Your task to perform on an android device: change your default location settings in chrome Image 0: 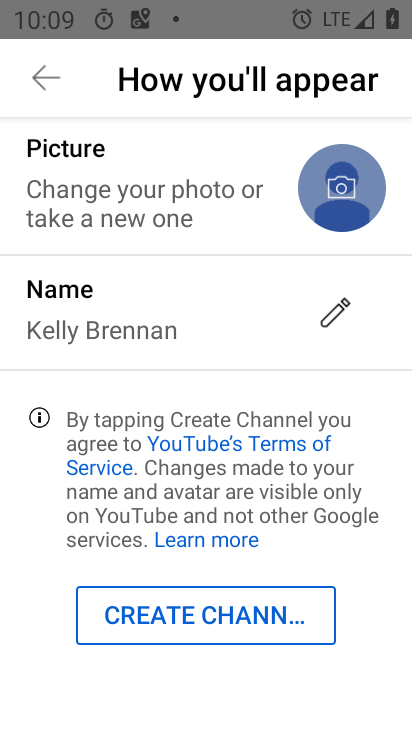
Step 0: press back button
Your task to perform on an android device: change your default location settings in chrome Image 1: 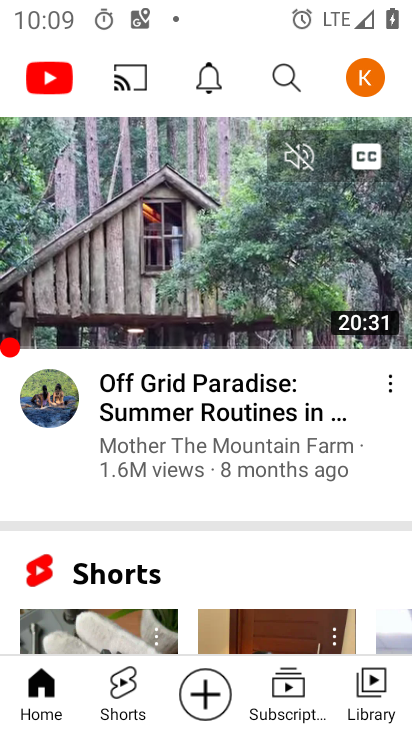
Step 1: press home button
Your task to perform on an android device: change your default location settings in chrome Image 2: 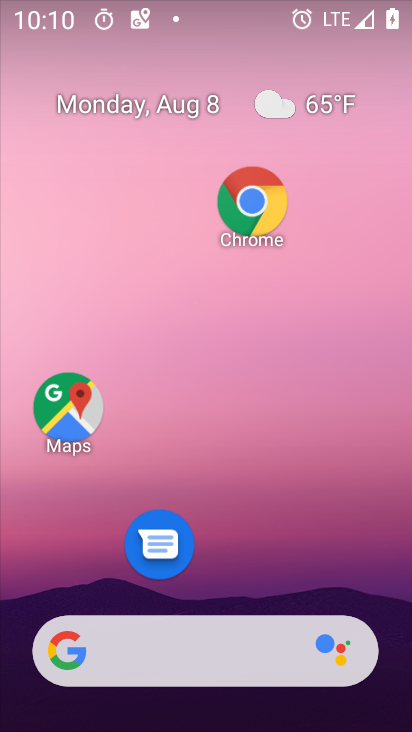
Step 2: drag from (284, 580) to (341, 110)
Your task to perform on an android device: change your default location settings in chrome Image 3: 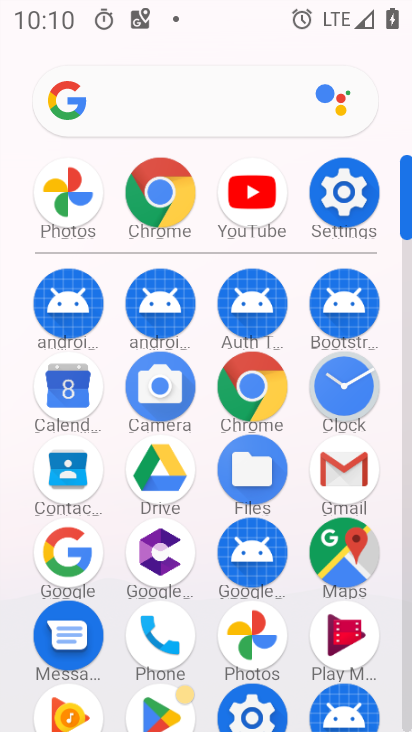
Step 3: click (248, 377)
Your task to perform on an android device: change your default location settings in chrome Image 4: 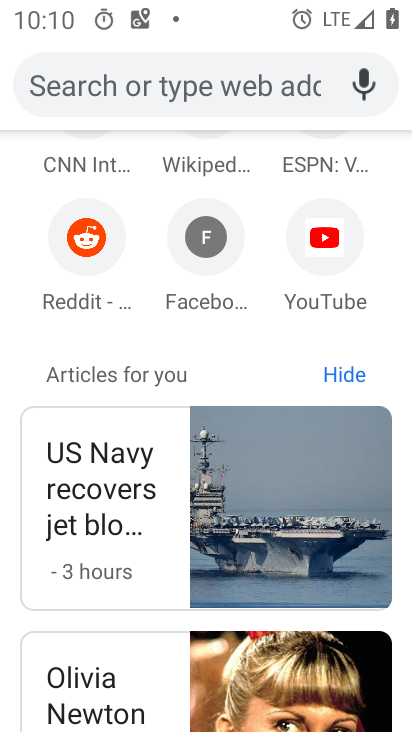
Step 4: drag from (201, 194) to (218, 621)
Your task to perform on an android device: change your default location settings in chrome Image 5: 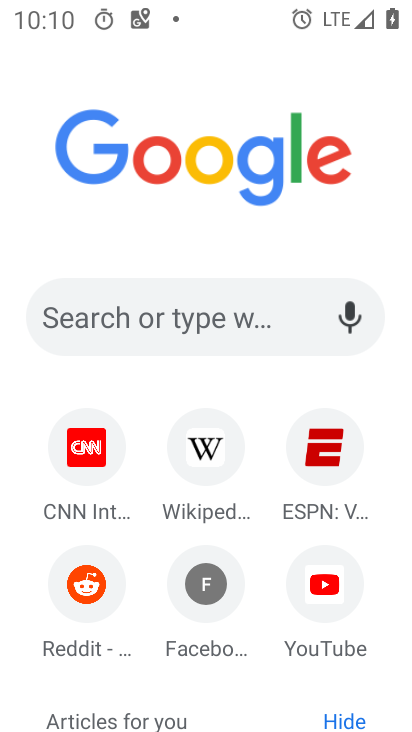
Step 5: drag from (338, 112) to (331, 481)
Your task to perform on an android device: change your default location settings in chrome Image 6: 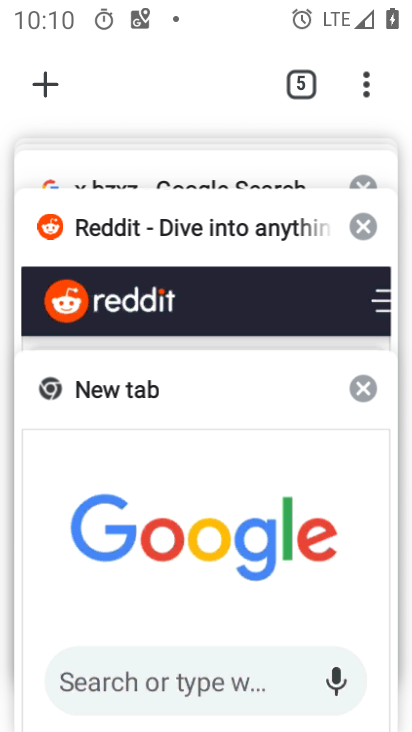
Step 6: click (258, 495)
Your task to perform on an android device: change your default location settings in chrome Image 7: 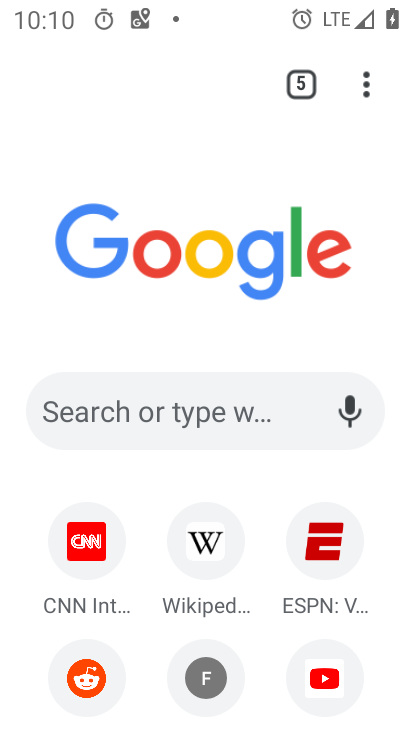
Step 7: click (368, 78)
Your task to perform on an android device: change your default location settings in chrome Image 8: 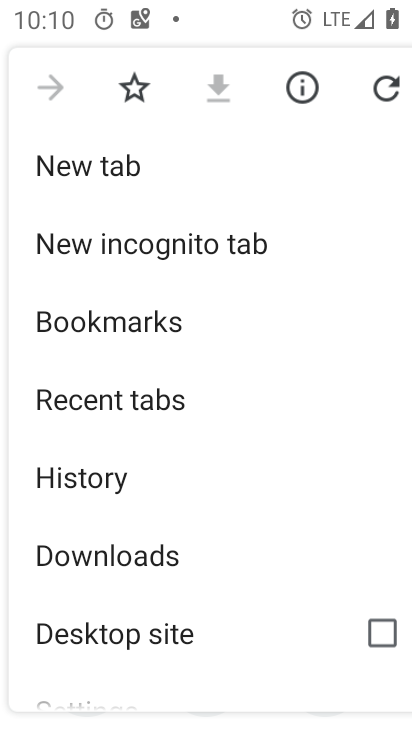
Step 8: drag from (208, 606) to (221, 193)
Your task to perform on an android device: change your default location settings in chrome Image 9: 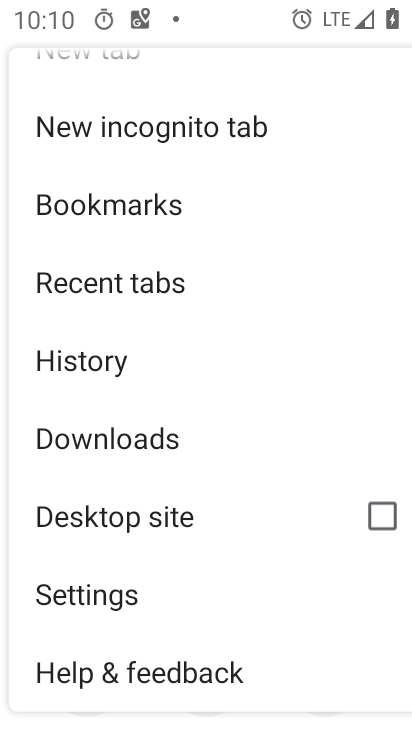
Step 9: click (149, 597)
Your task to perform on an android device: change your default location settings in chrome Image 10: 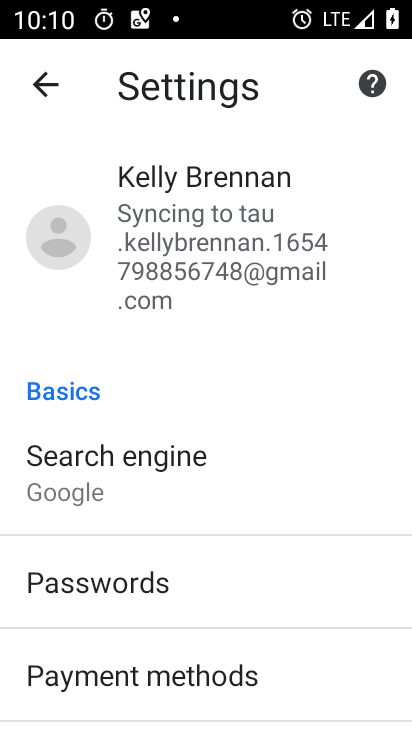
Step 10: drag from (284, 651) to (275, 183)
Your task to perform on an android device: change your default location settings in chrome Image 11: 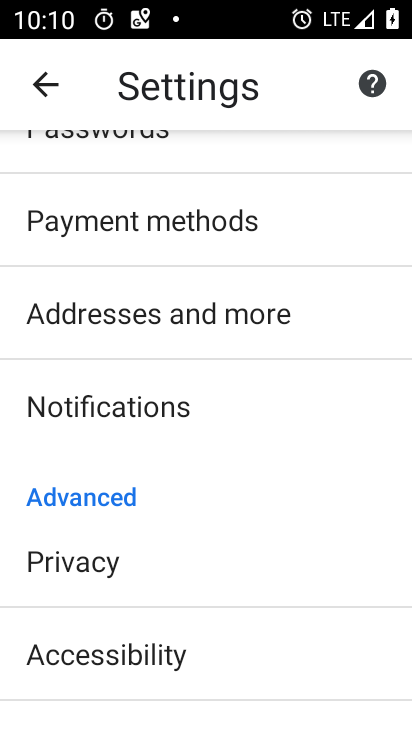
Step 11: drag from (228, 664) to (241, 198)
Your task to perform on an android device: change your default location settings in chrome Image 12: 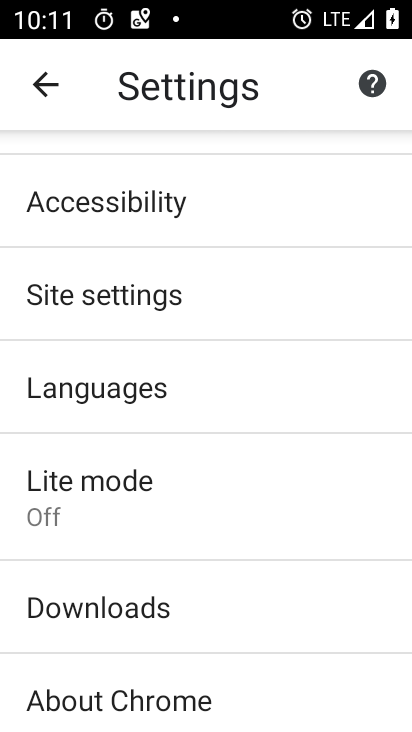
Step 12: click (193, 290)
Your task to perform on an android device: change your default location settings in chrome Image 13: 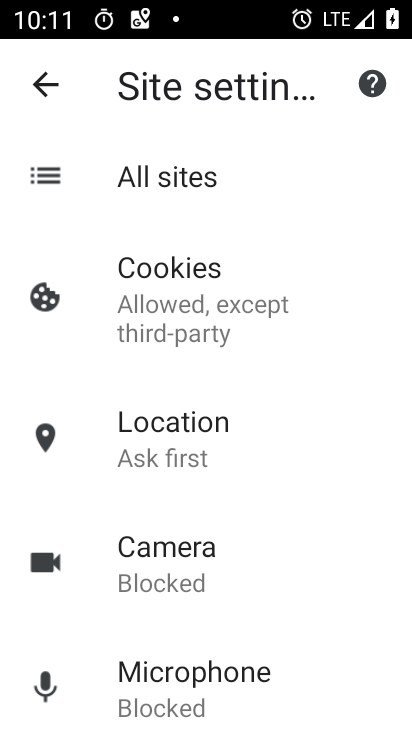
Step 13: click (250, 442)
Your task to perform on an android device: change your default location settings in chrome Image 14: 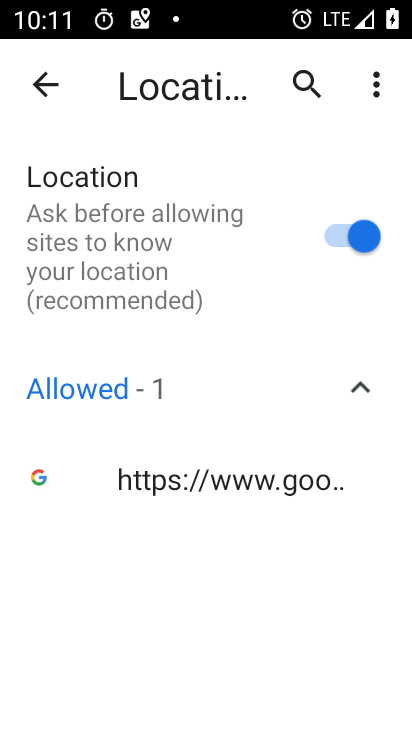
Step 14: click (343, 237)
Your task to perform on an android device: change your default location settings in chrome Image 15: 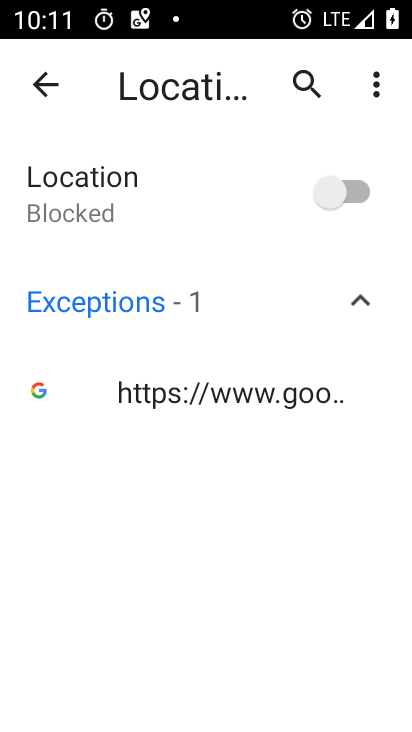
Step 15: task complete